Your task to perform on an android device: open app "ColorNote Notepad Notes" (install if not already installed) and enter user name: "unbridled@gmail.com" and password: "regularly" Image 0: 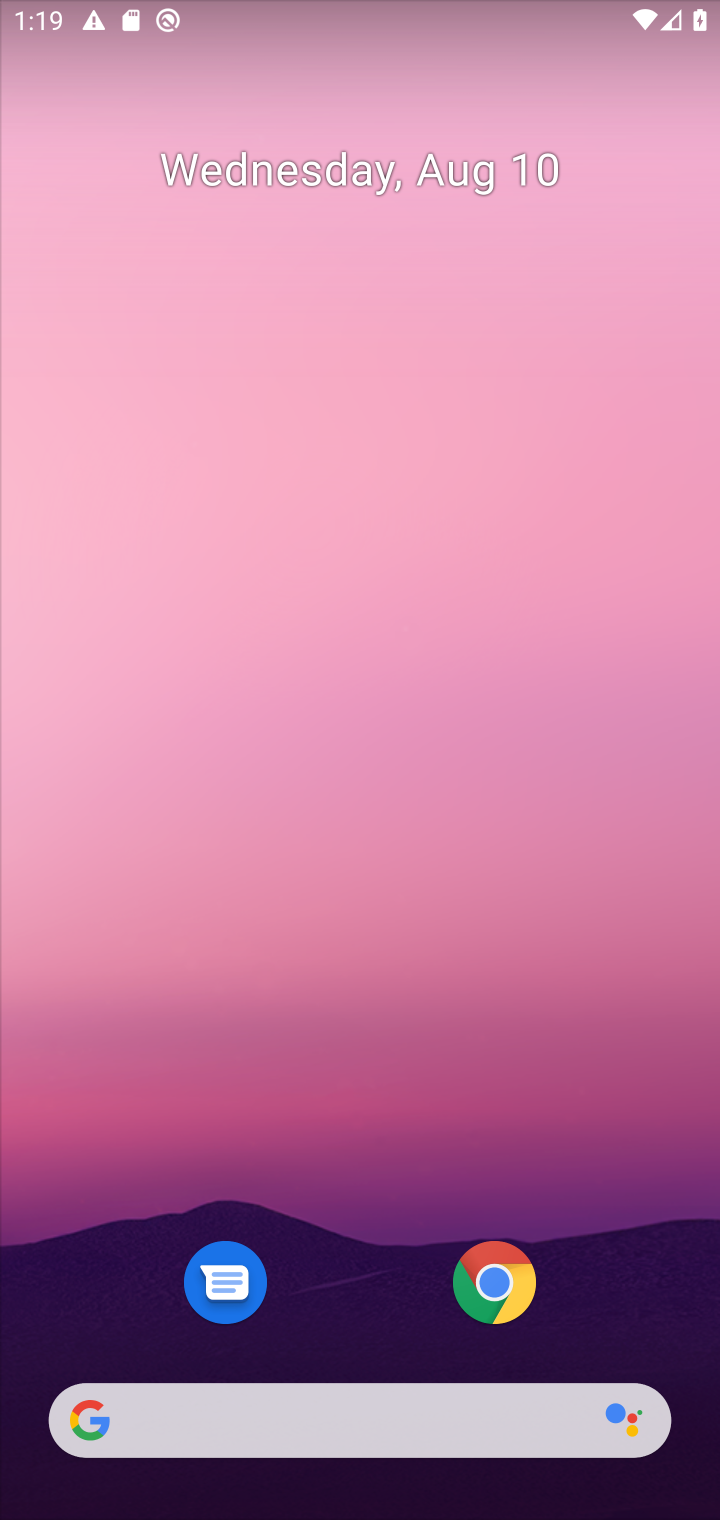
Step 0: drag from (320, 1393) to (183, 193)
Your task to perform on an android device: open app "ColorNote Notepad Notes" (install if not already installed) and enter user name: "unbridled@gmail.com" and password: "regularly" Image 1: 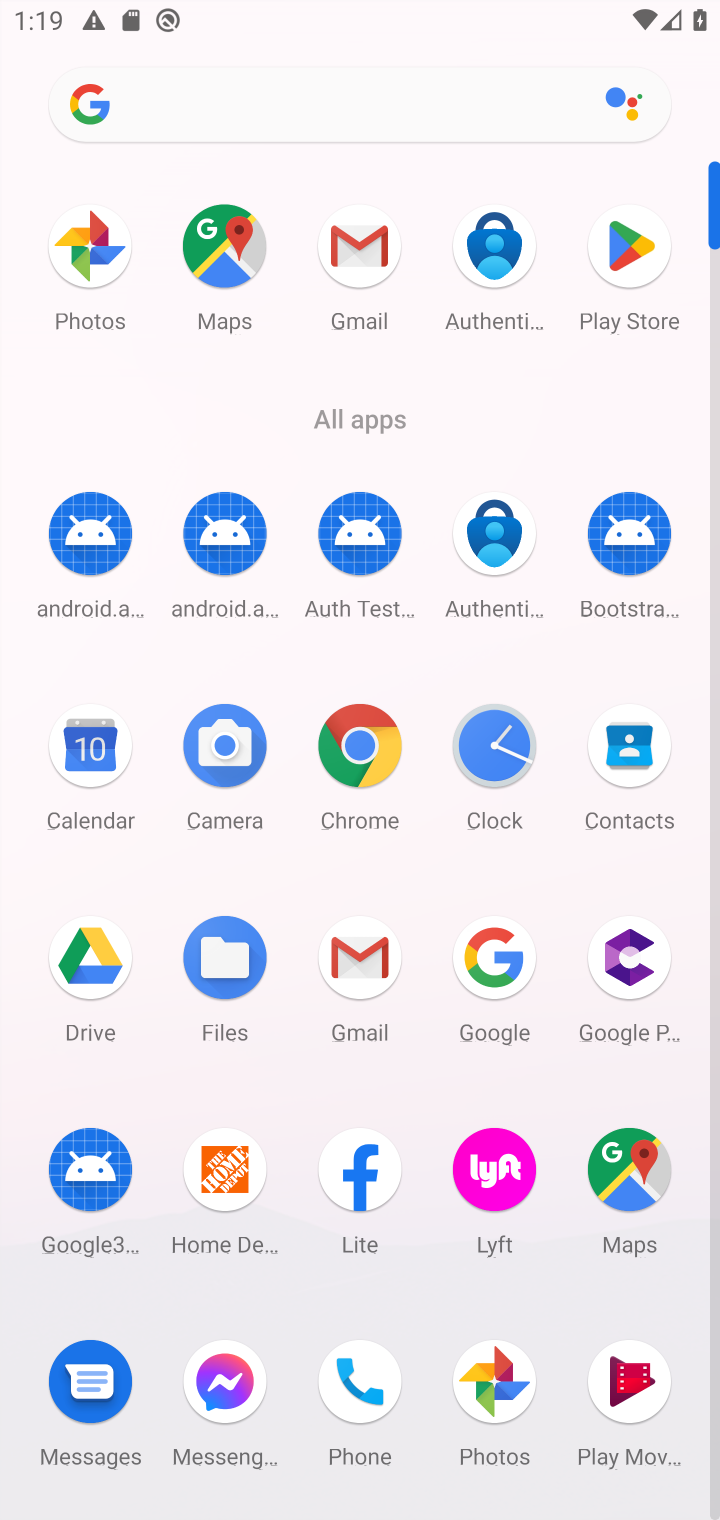
Step 1: click (634, 271)
Your task to perform on an android device: open app "ColorNote Notepad Notes" (install if not already installed) and enter user name: "unbridled@gmail.com" and password: "regularly" Image 2: 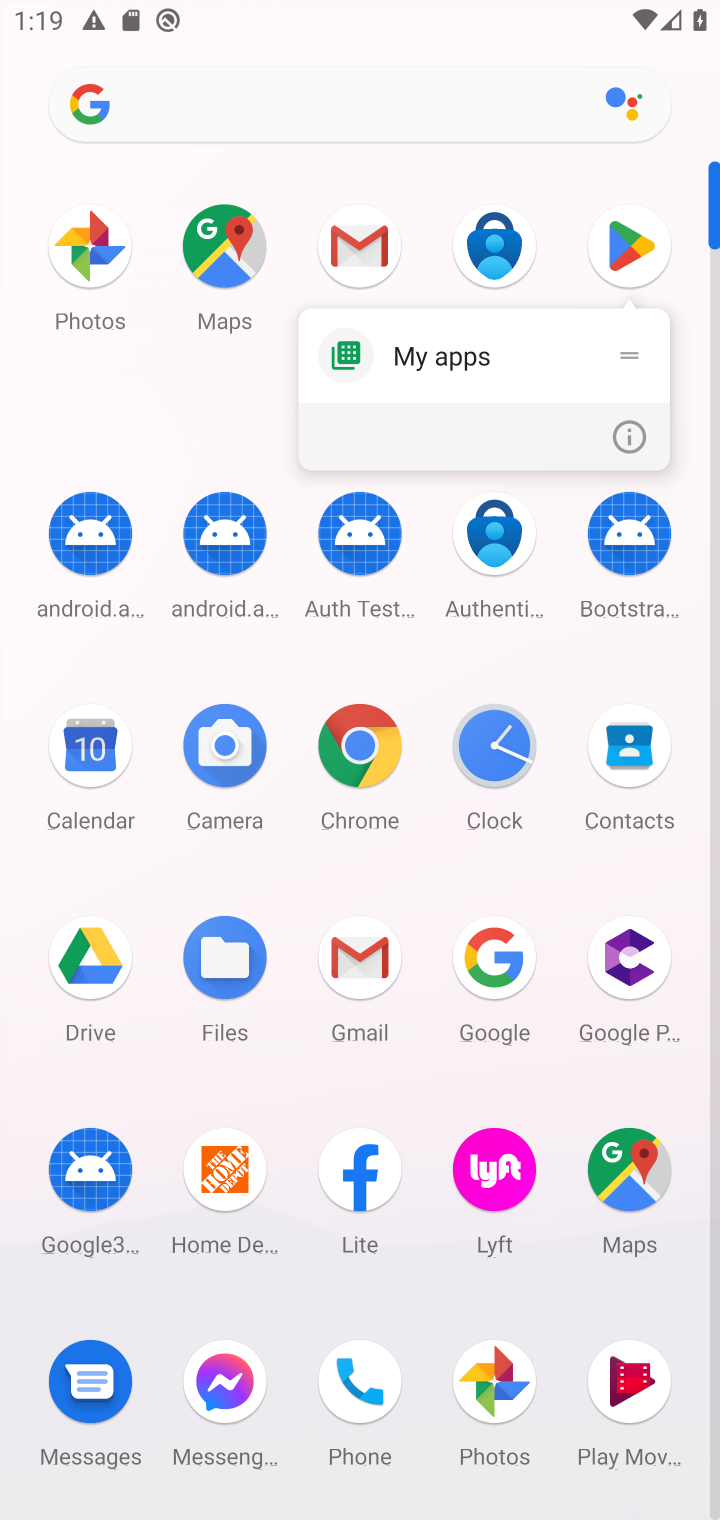
Step 2: click (634, 227)
Your task to perform on an android device: open app "ColorNote Notepad Notes" (install if not already installed) and enter user name: "unbridled@gmail.com" and password: "regularly" Image 3: 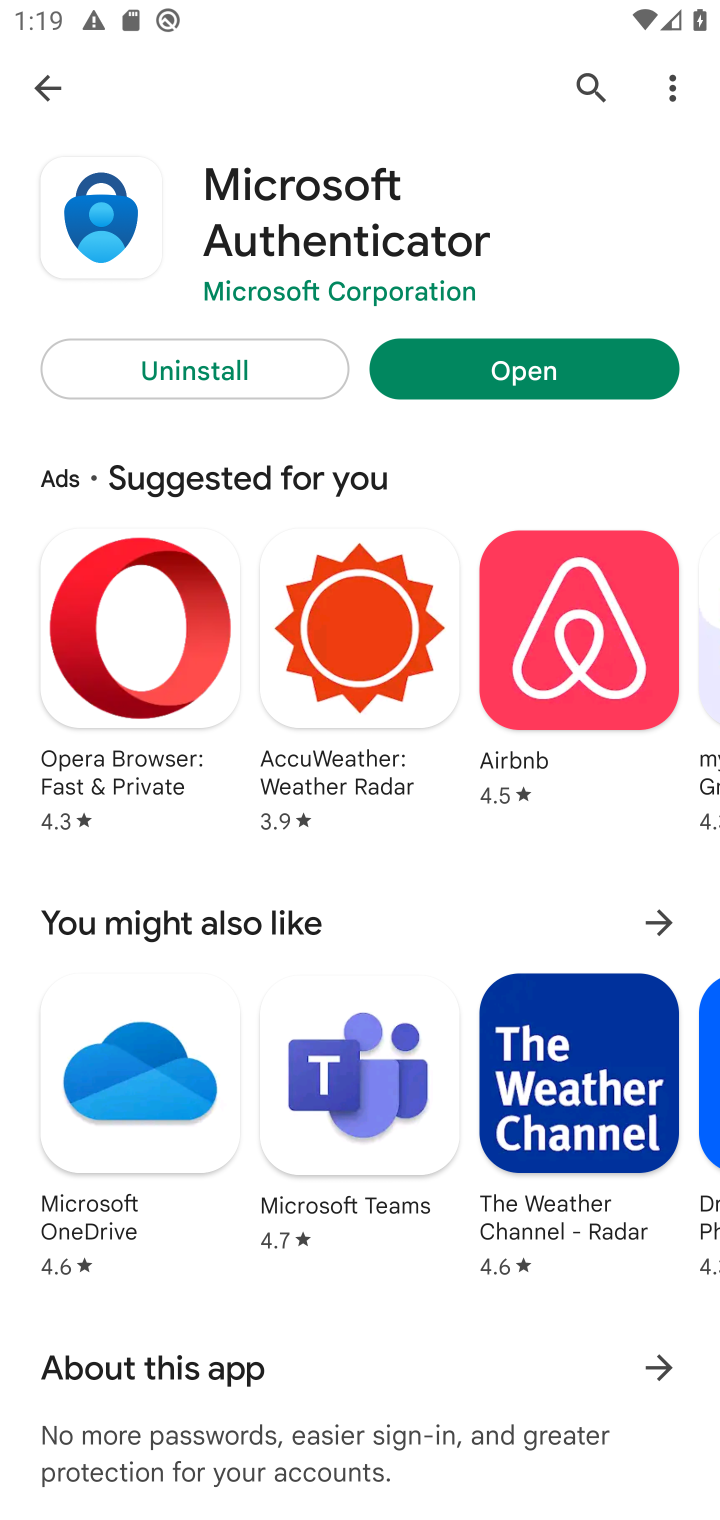
Step 3: click (40, 78)
Your task to perform on an android device: open app "ColorNote Notepad Notes" (install if not already installed) and enter user name: "unbridled@gmail.com" and password: "regularly" Image 4: 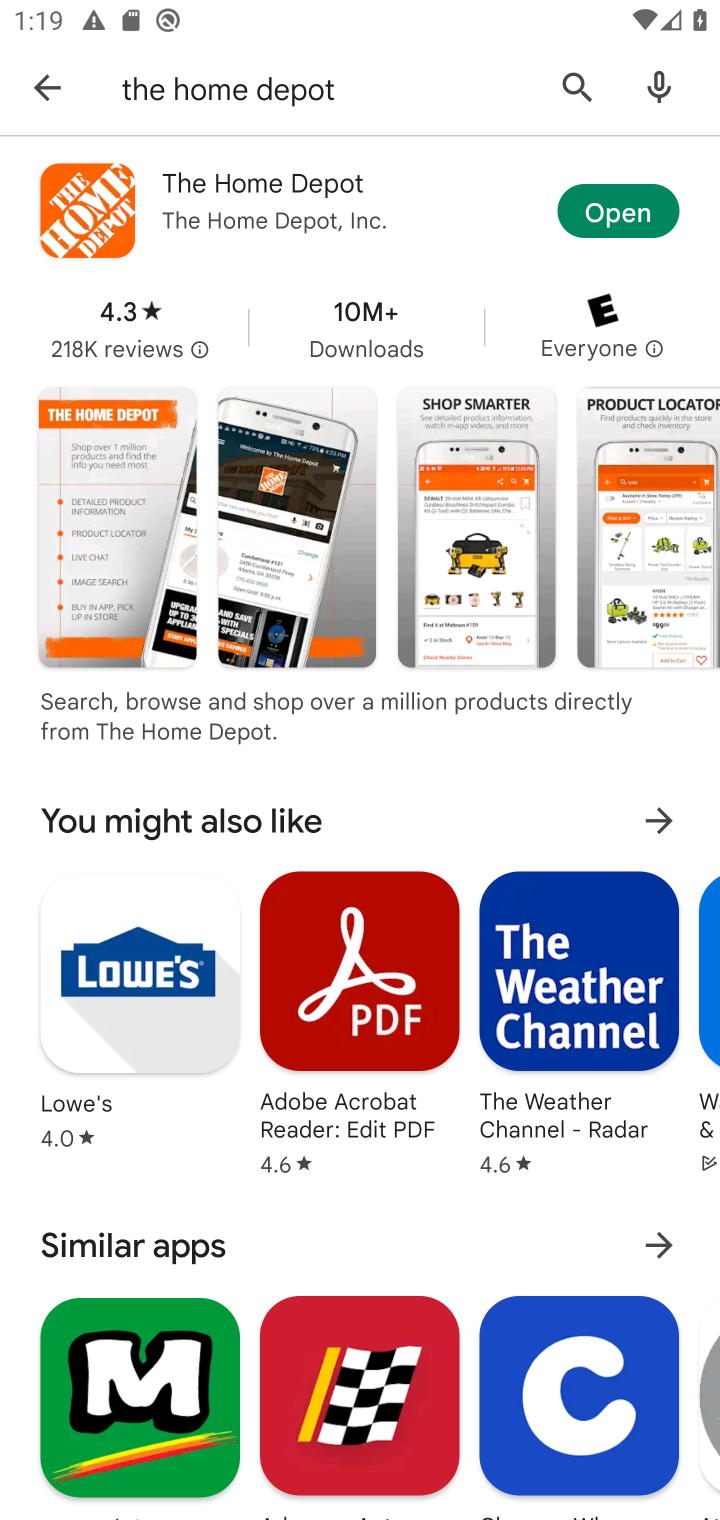
Step 4: click (558, 90)
Your task to perform on an android device: open app "ColorNote Notepad Notes" (install if not already installed) and enter user name: "unbridled@gmail.com" and password: "regularly" Image 5: 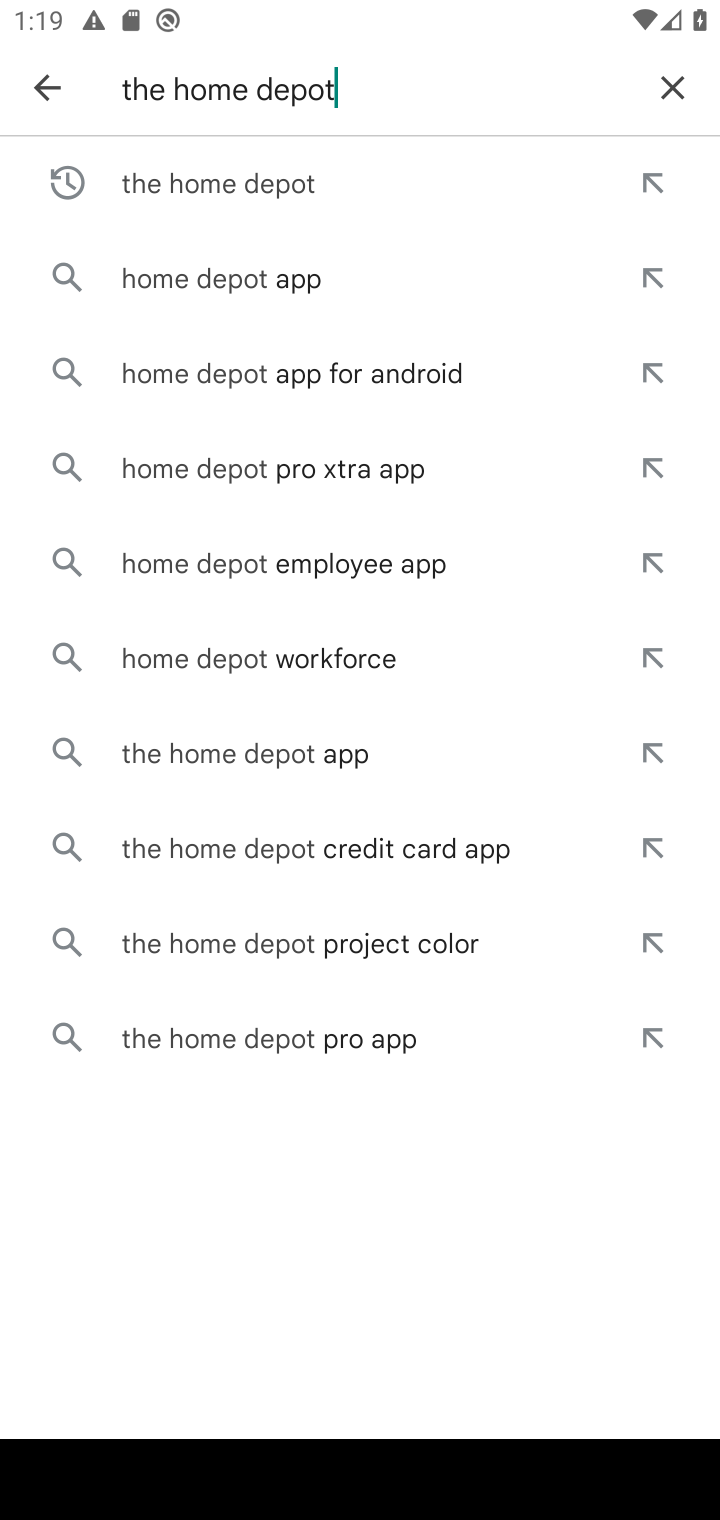
Step 5: click (672, 92)
Your task to perform on an android device: open app "ColorNote Notepad Notes" (install if not already installed) and enter user name: "unbridled@gmail.com" and password: "regularly" Image 6: 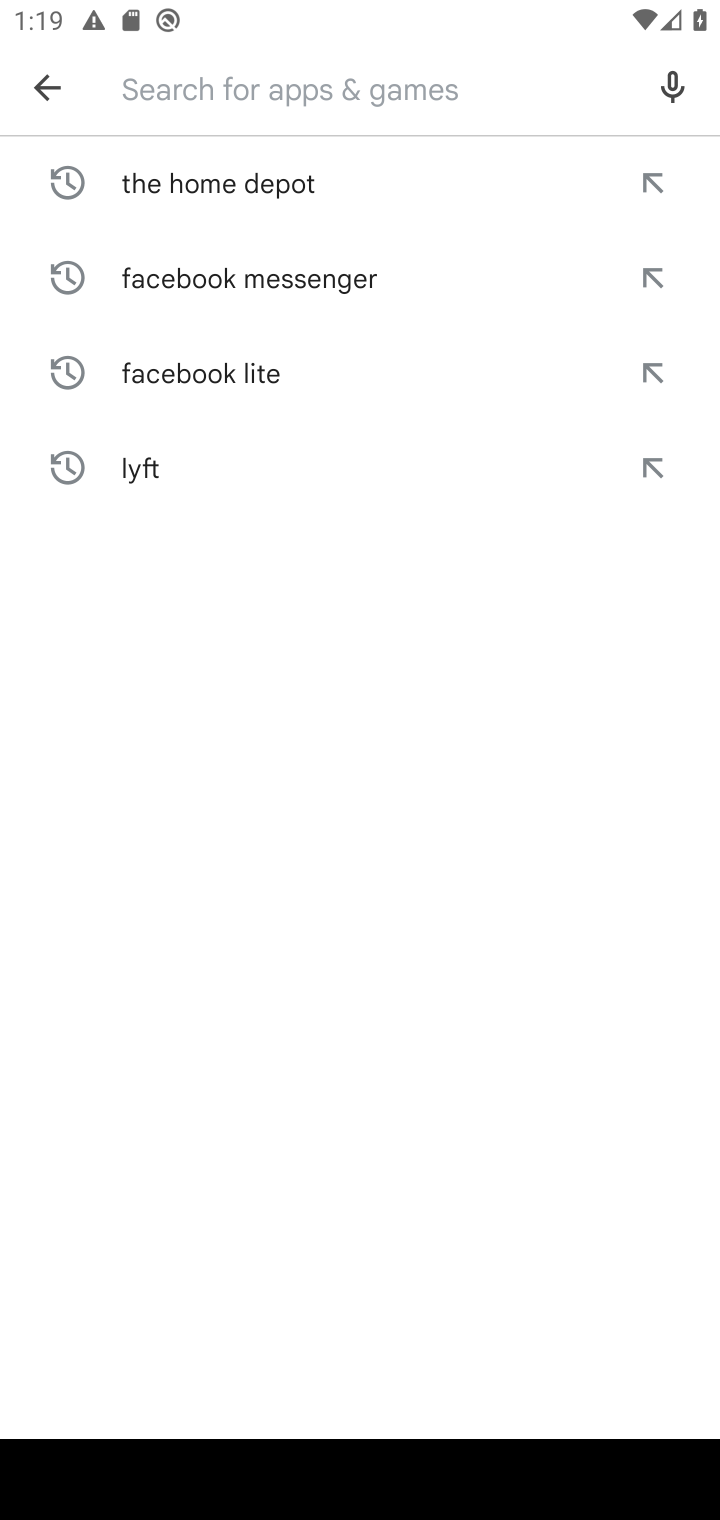
Step 6: type "ColorNote Notepad Notes"
Your task to perform on an android device: open app "ColorNote Notepad Notes" (install if not already installed) and enter user name: "unbridled@gmail.com" and password: "regularly" Image 7: 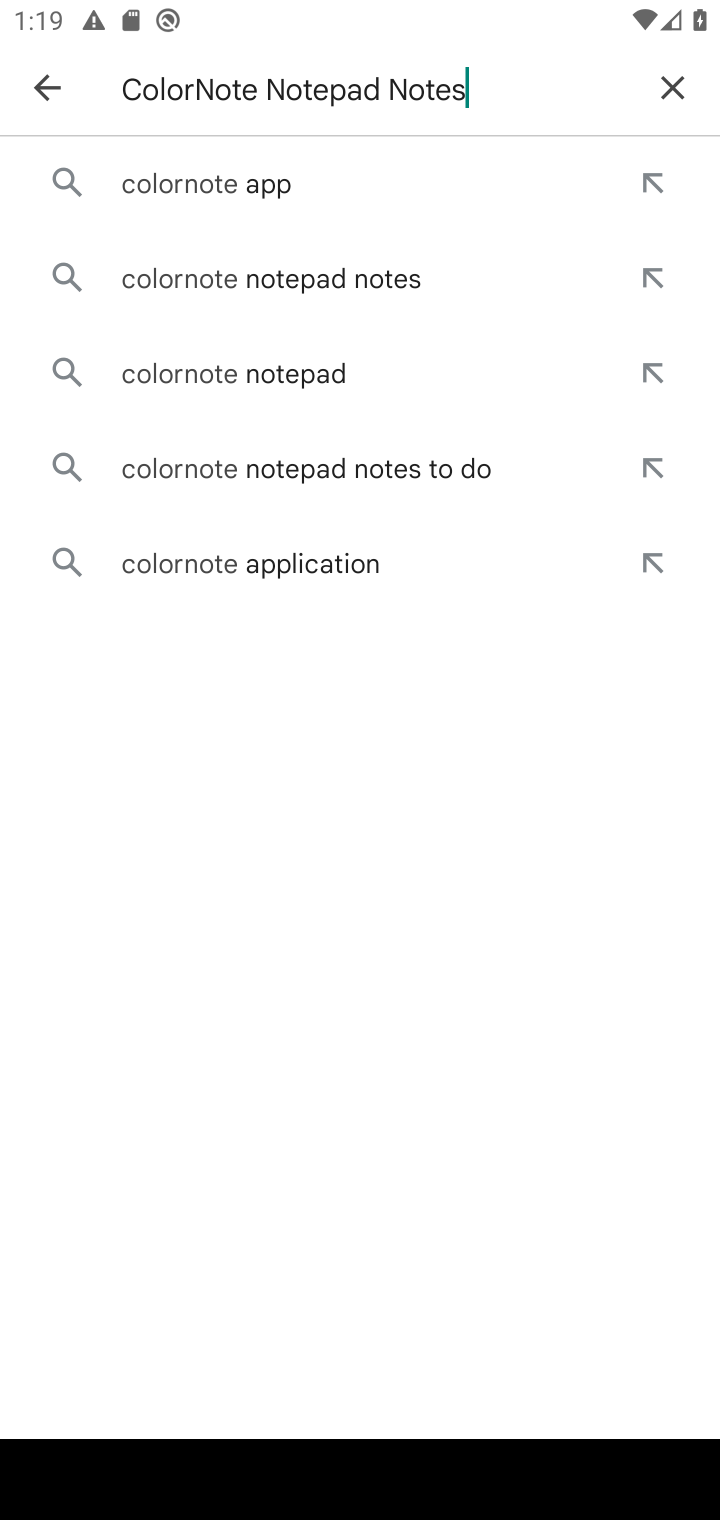
Step 7: type ""
Your task to perform on an android device: open app "ColorNote Notepad Notes" (install if not already installed) and enter user name: "unbridled@gmail.com" and password: "regularly" Image 8: 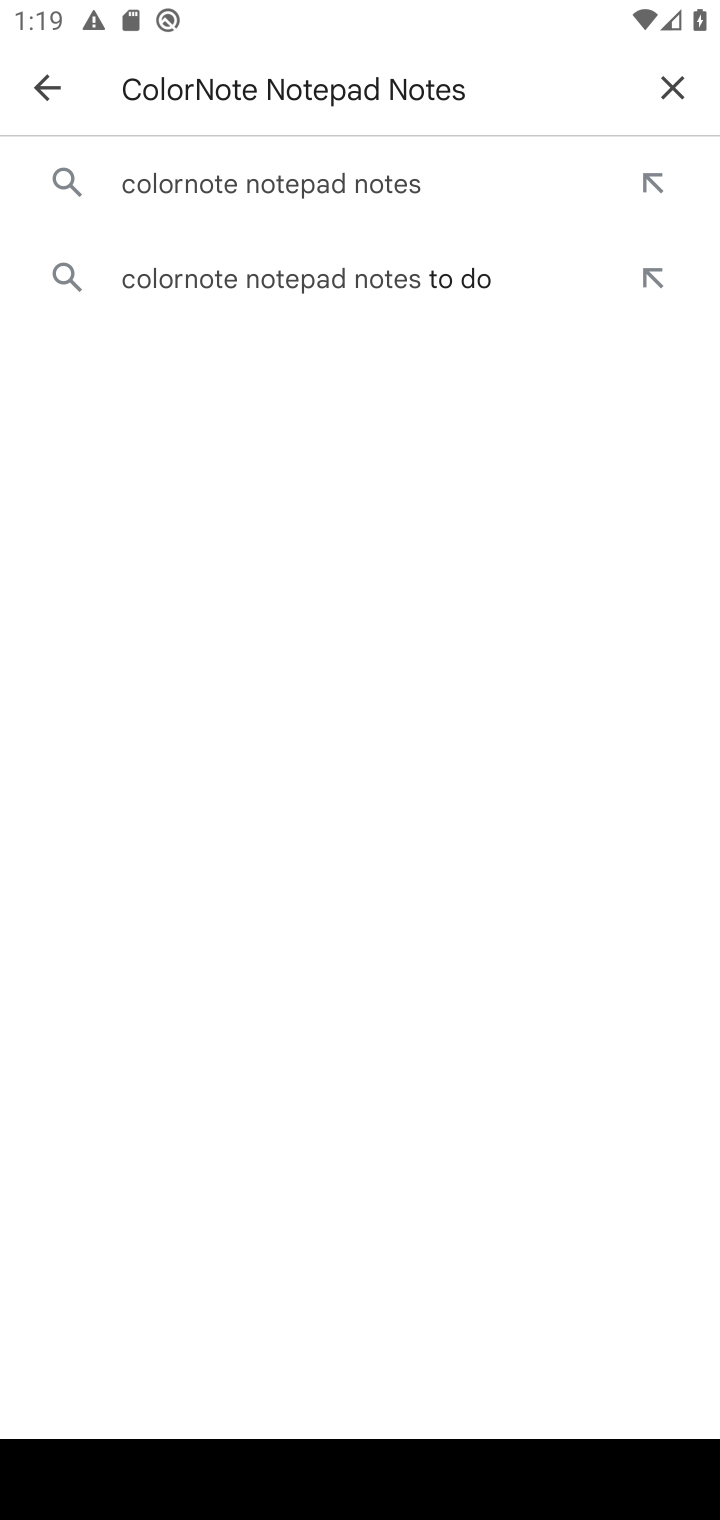
Step 8: click (173, 167)
Your task to perform on an android device: open app "ColorNote Notepad Notes" (install if not already installed) and enter user name: "unbridled@gmail.com" and password: "regularly" Image 9: 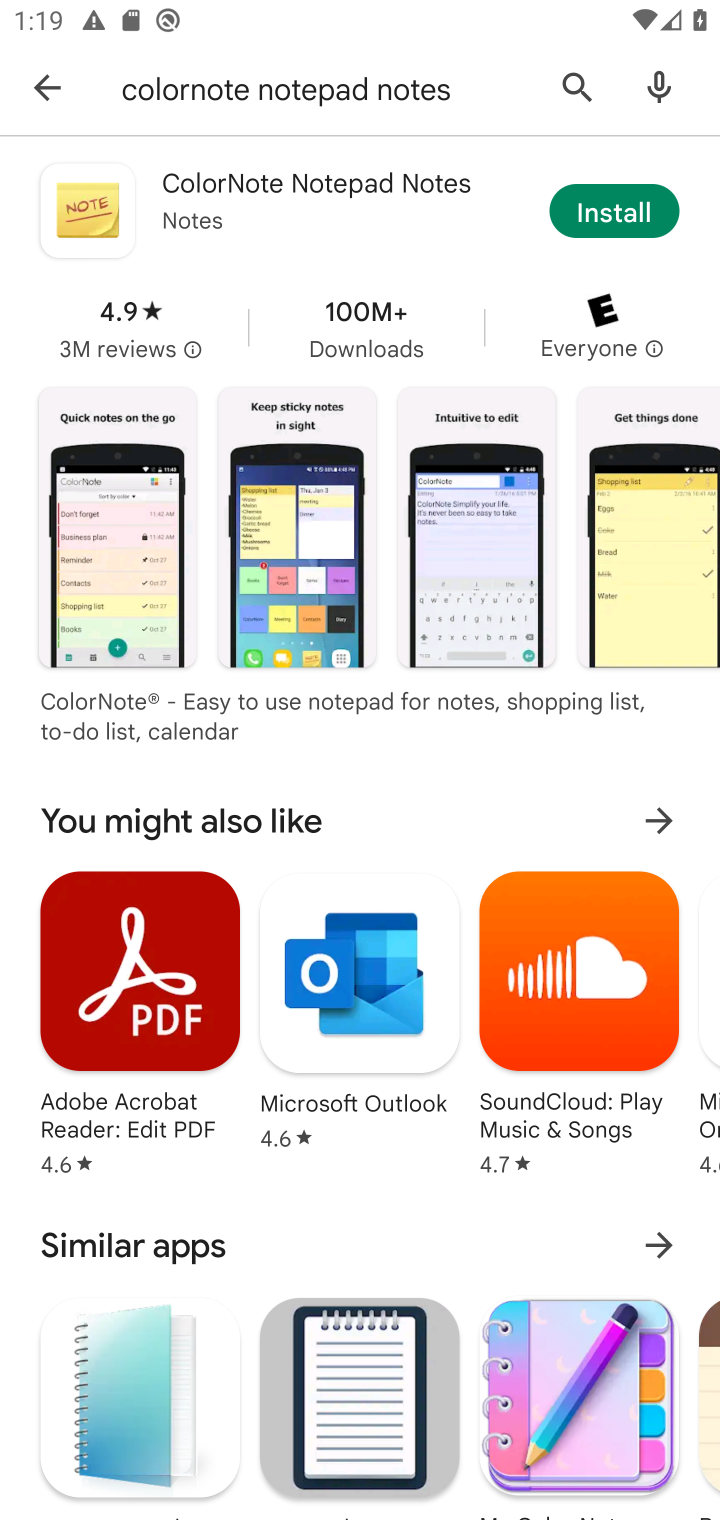
Step 9: click (561, 210)
Your task to perform on an android device: open app "ColorNote Notepad Notes" (install if not already installed) and enter user name: "unbridled@gmail.com" and password: "regularly" Image 10: 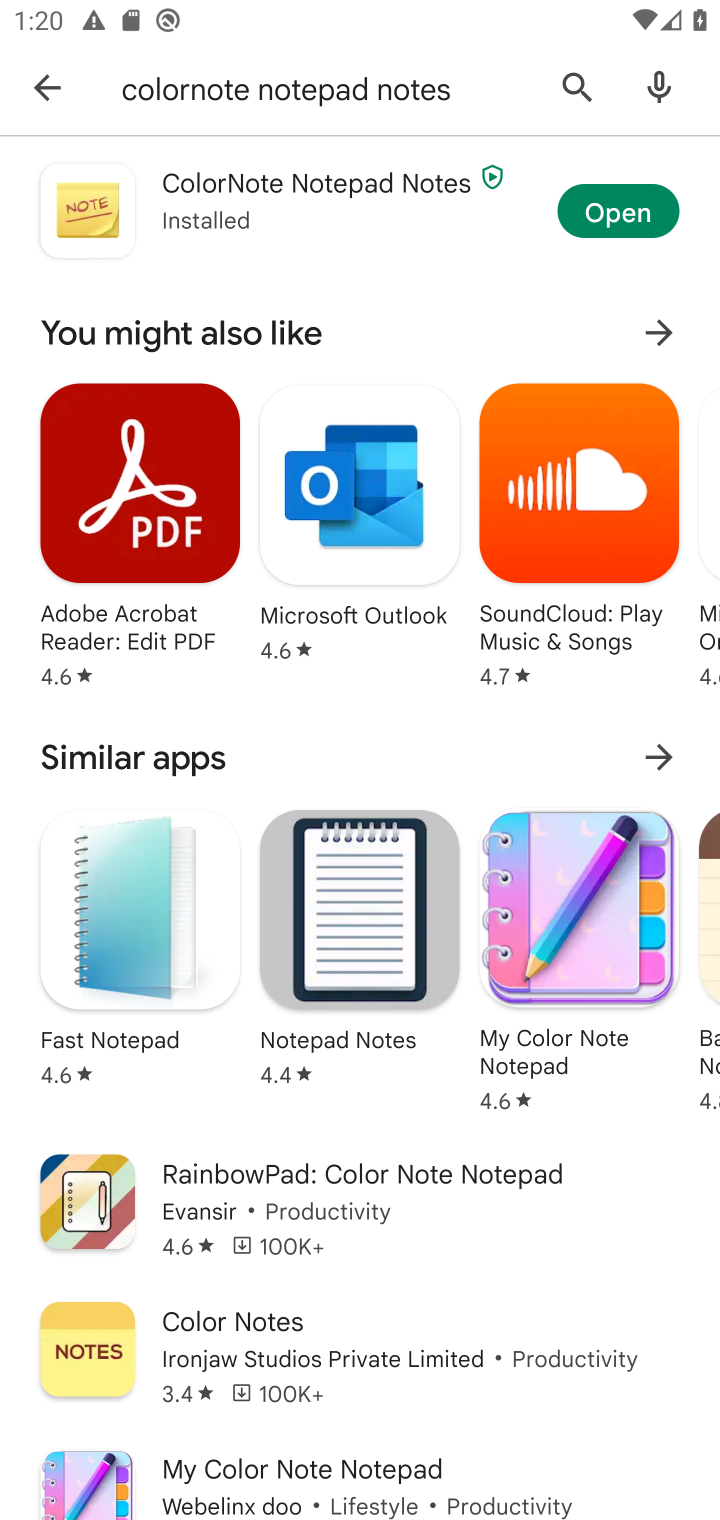
Step 10: click (559, 208)
Your task to perform on an android device: open app "ColorNote Notepad Notes" (install if not already installed) and enter user name: "unbridled@gmail.com" and password: "regularly" Image 11: 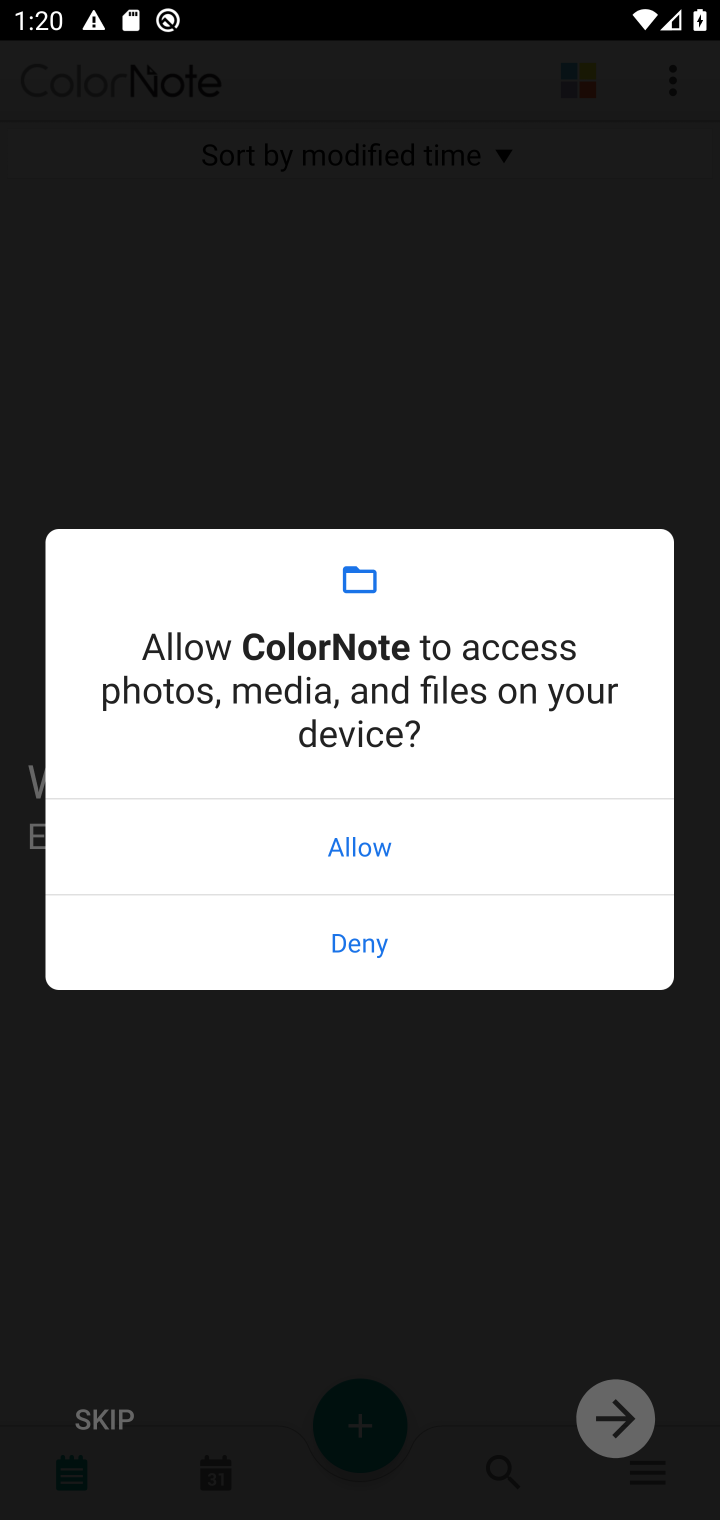
Step 11: click (253, 847)
Your task to perform on an android device: open app "ColorNote Notepad Notes" (install if not already installed) and enter user name: "unbridled@gmail.com" and password: "regularly" Image 12: 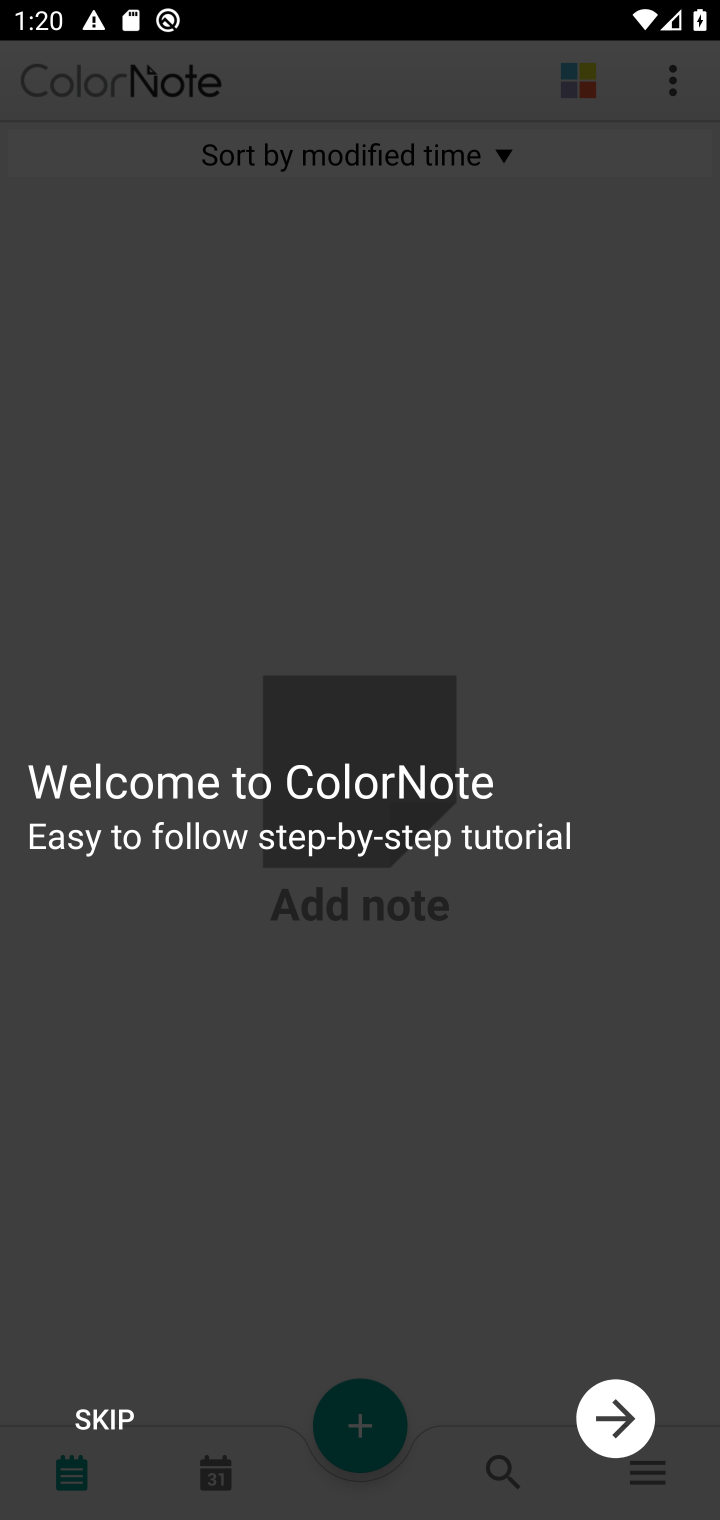
Step 12: click (110, 1434)
Your task to perform on an android device: open app "ColorNote Notepad Notes" (install if not already installed) and enter user name: "unbridled@gmail.com" and password: "regularly" Image 13: 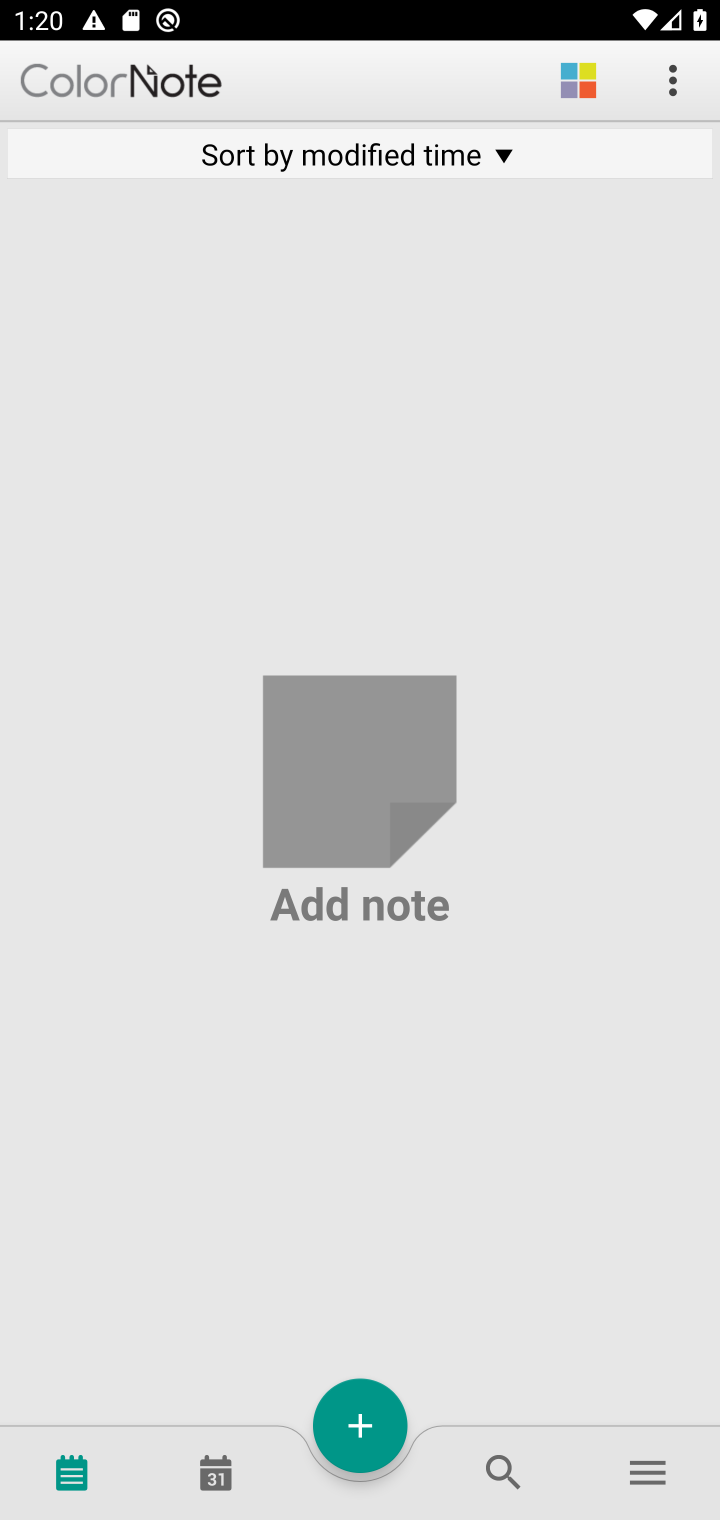
Step 13: click (674, 81)
Your task to perform on an android device: open app "ColorNote Notepad Notes" (install if not already installed) and enter user name: "unbridled@gmail.com" and password: "regularly" Image 14: 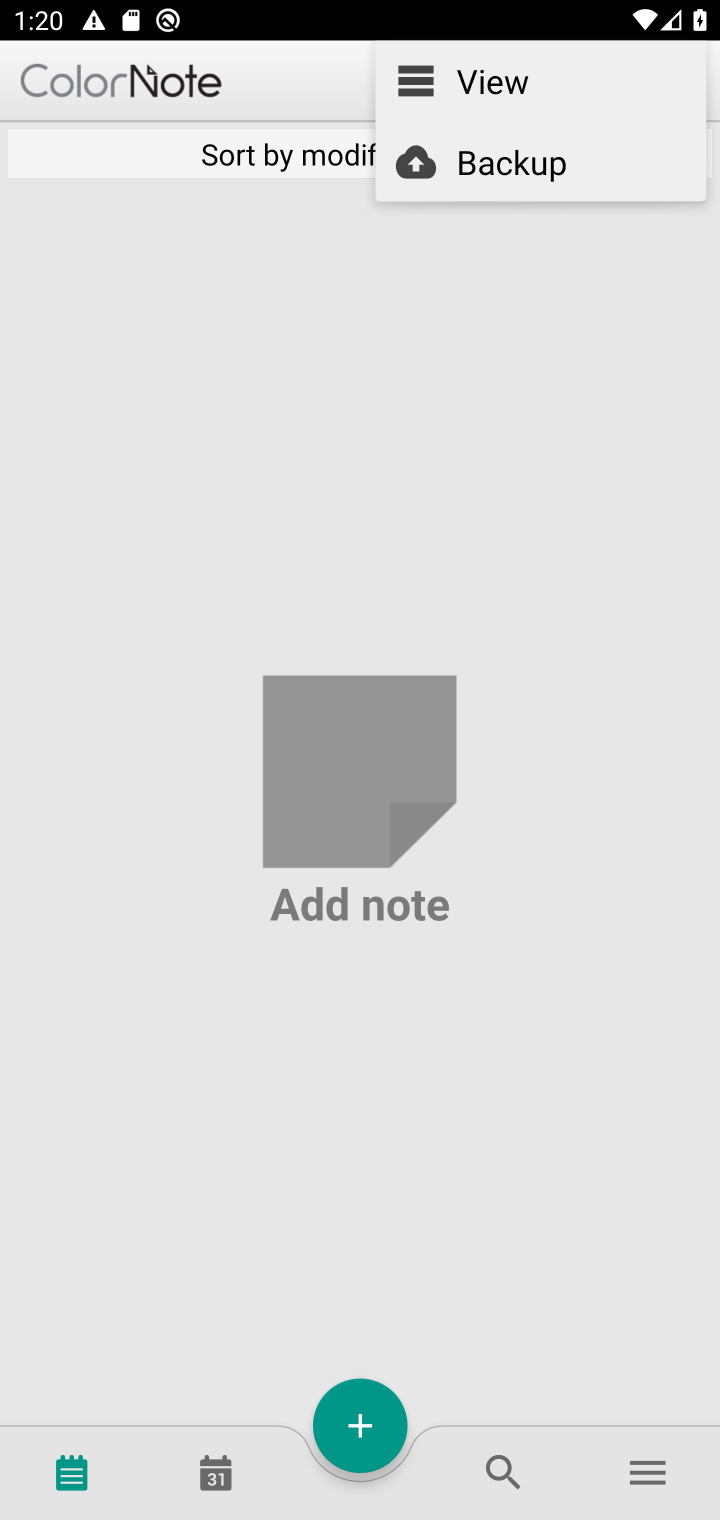
Step 14: click (641, 707)
Your task to perform on an android device: open app "ColorNote Notepad Notes" (install if not already installed) and enter user name: "unbridled@gmail.com" and password: "regularly" Image 15: 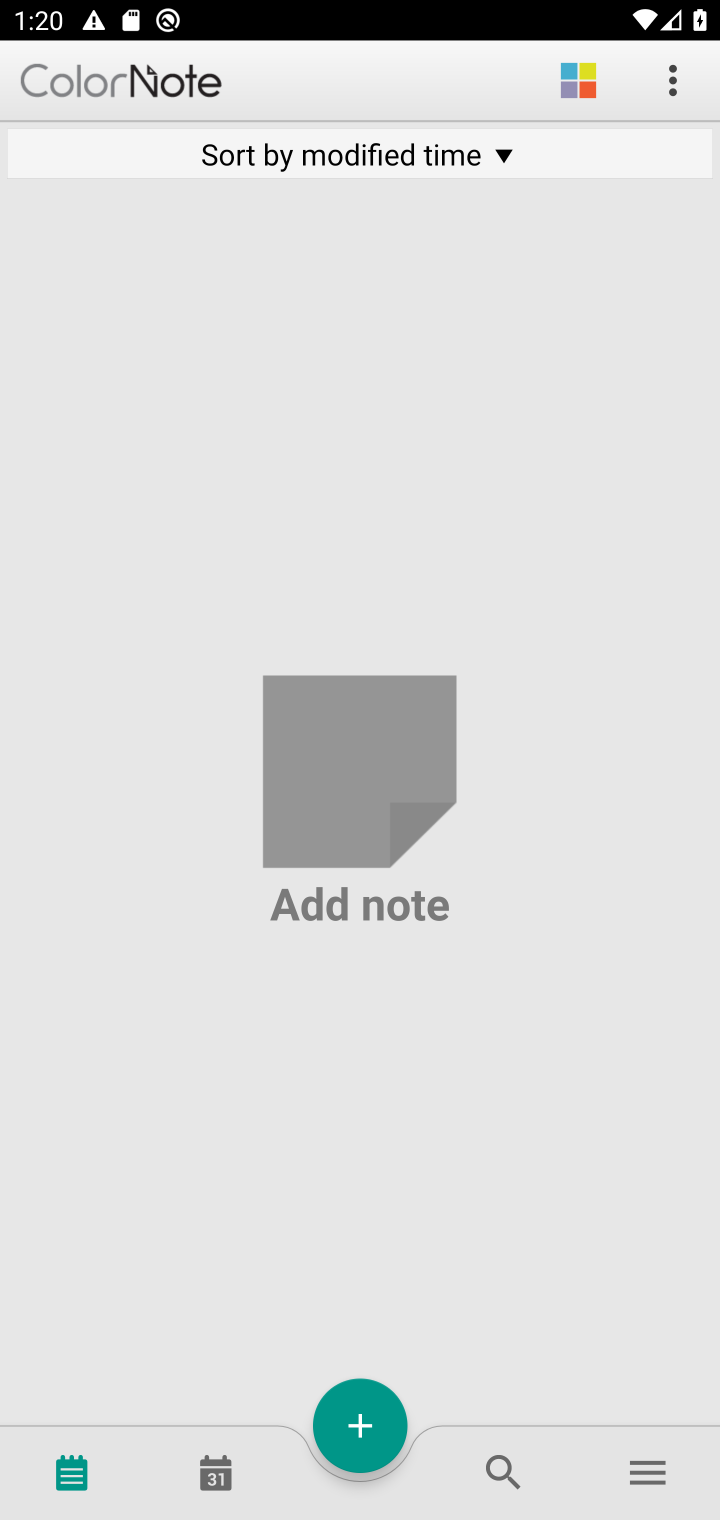
Step 15: click (648, 1486)
Your task to perform on an android device: open app "ColorNote Notepad Notes" (install if not already installed) and enter user name: "unbridled@gmail.com" and password: "regularly" Image 16: 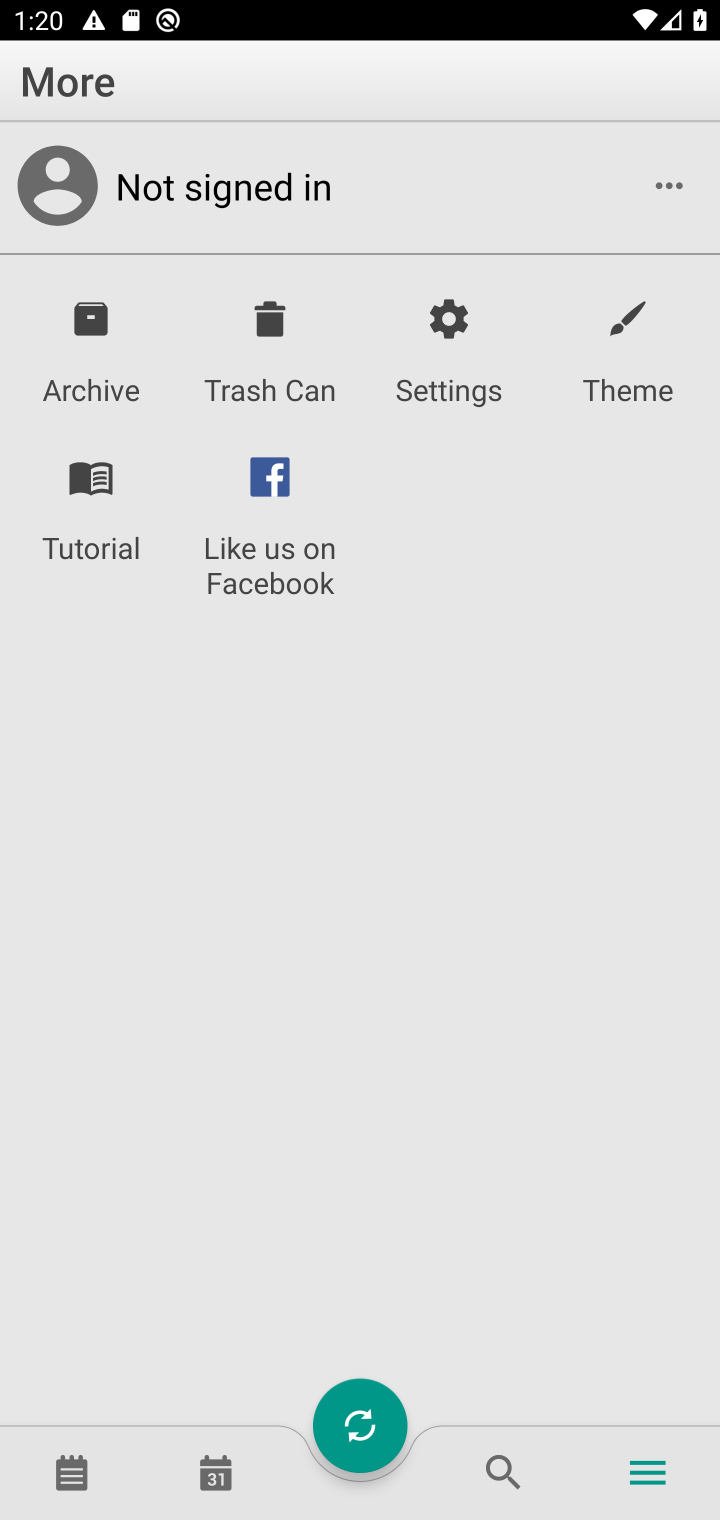
Step 16: click (310, 174)
Your task to perform on an android device: open app "ColorNote Notepad Notes" (install if not already installed) and enter user name: "unbridled@gmail.com" and password: "regularly" Image 17: 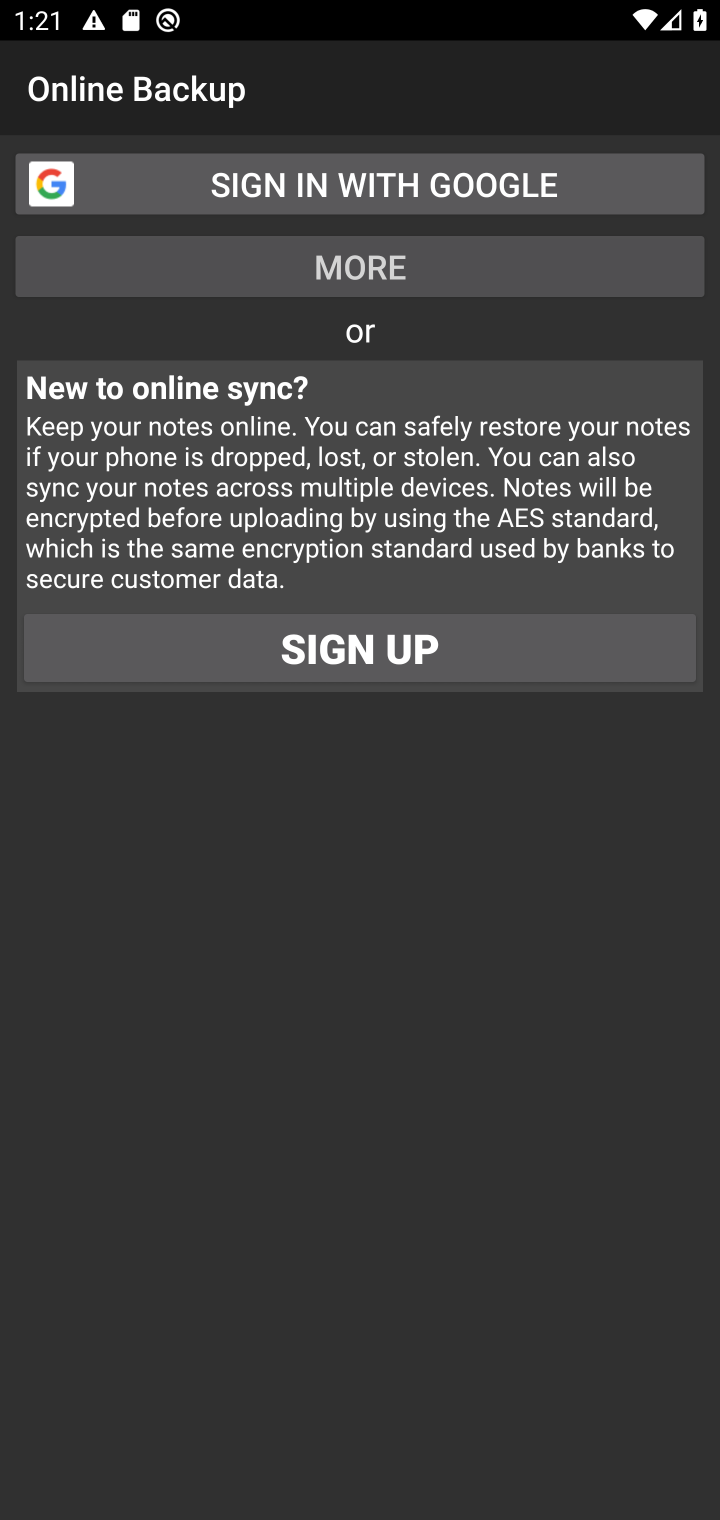
Step 17: click (302, 661)
Your task to perform on an android device: open app "ColorNote Notepad Notes" (install if not already installed) and enter user name: "unbridled@gmail.com" and password: "regularly" Image 18: 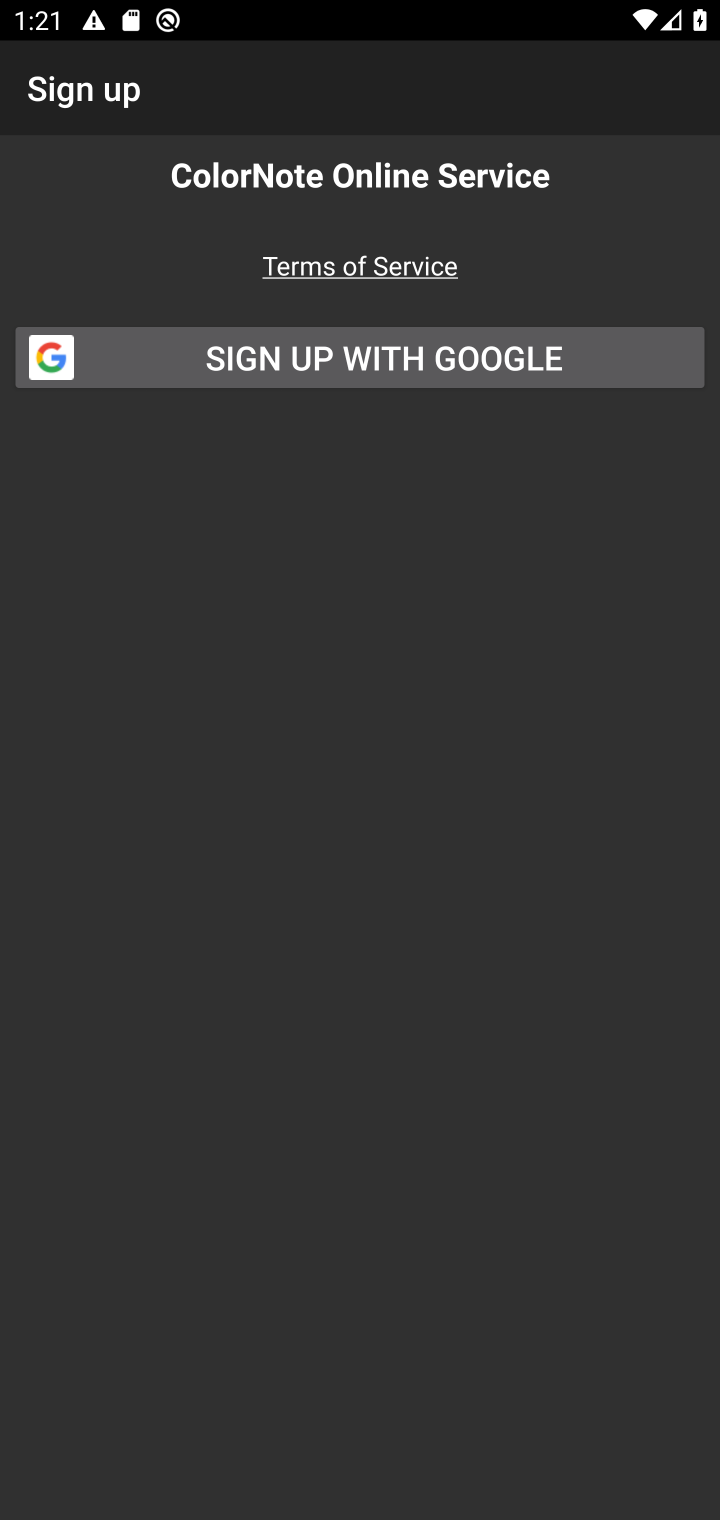
Step 18: click (457, 382)
Your task to perform on an android device: open app "ColorNote Notepad Notes" (install if not already installed) and enter user name: "unbridled@gmail.com" and password: "regularly" Image 19: 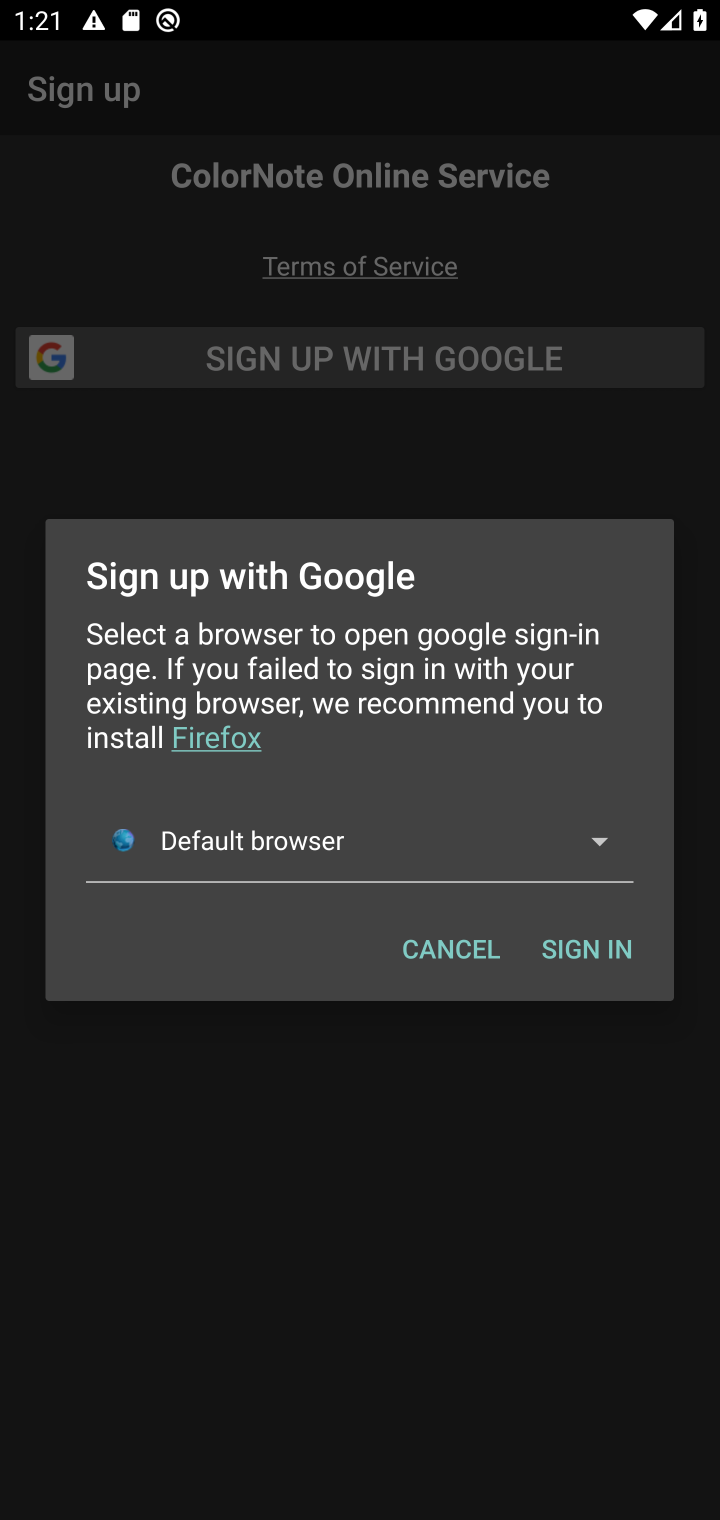
Step 19: task complete